Your task to perform on an android device: Go to notification settings Image 0: 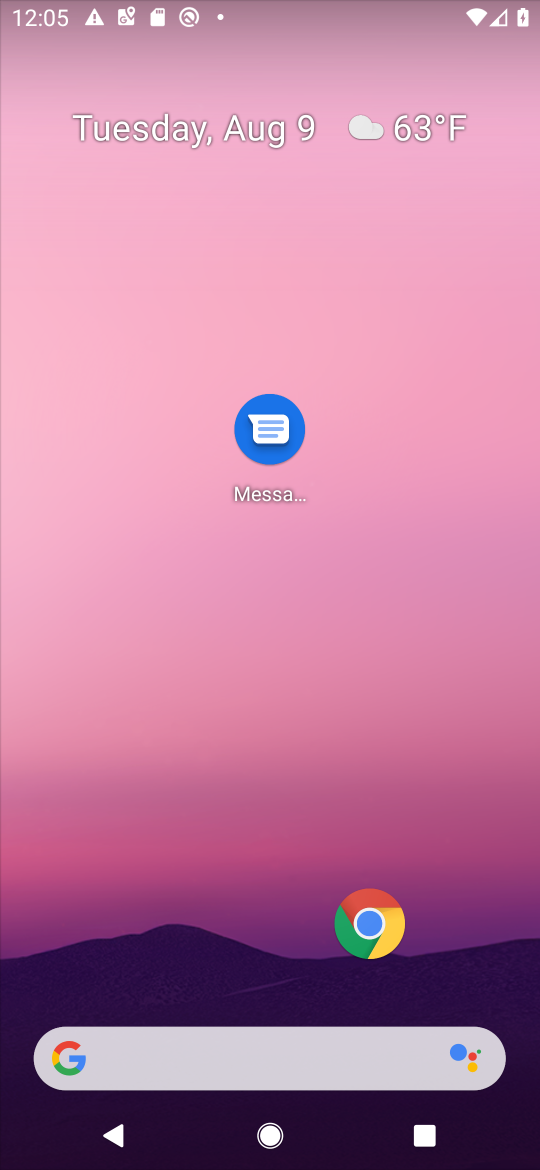
Step 0: drag from (40, 1117) to (139, 50)
Your task to perform on an android device: Go to notification settings Image 1: 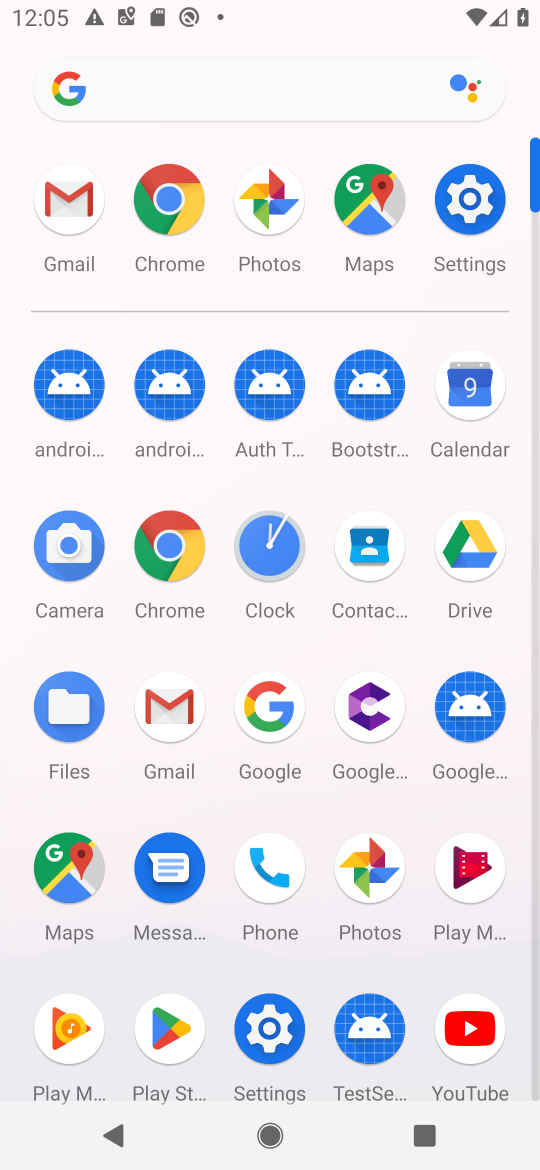
Step 1: click (281, 1020)
Your task to perform on an android device: Go to notification settings Image 2: 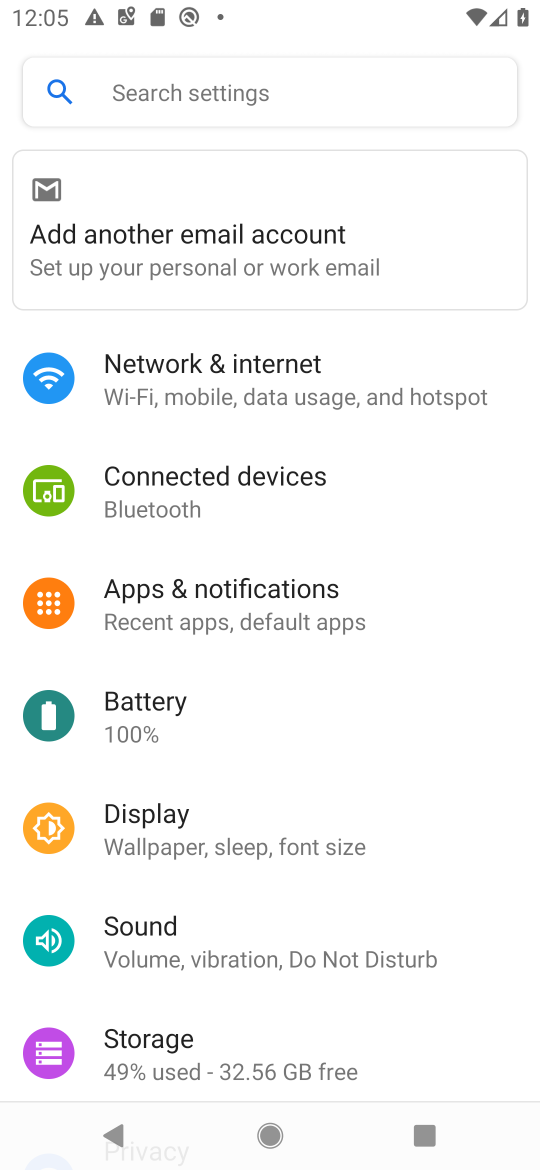
Step 2: drag from (476, 1033) to (523, 473)
Your task to perform on an android device: Go to notification settings Image 3: 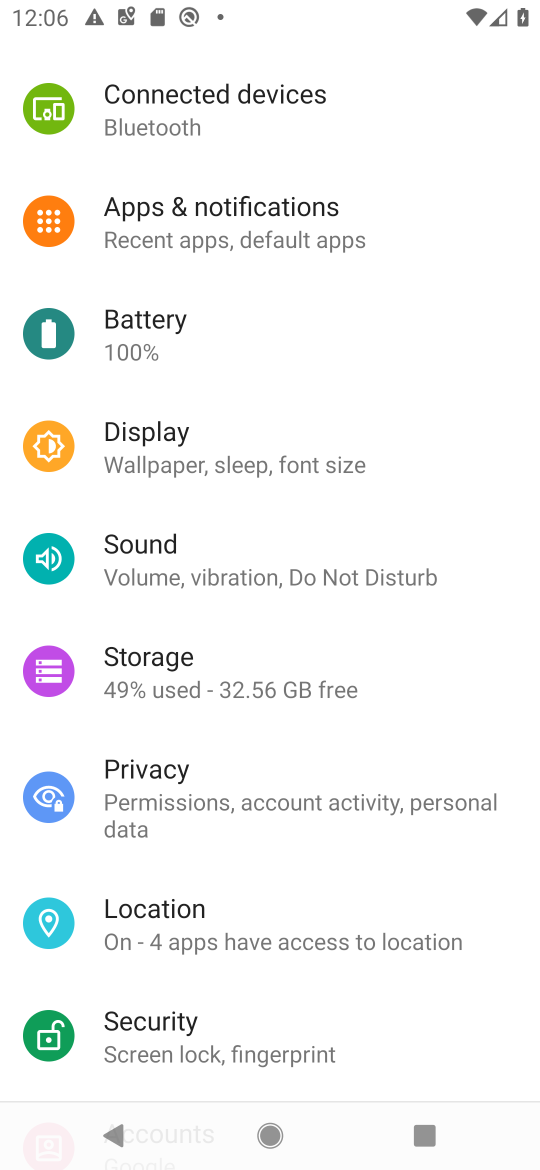
Step 3: click (190, 221)
Your task to perform on an android device: Go to notification settings Image 4: 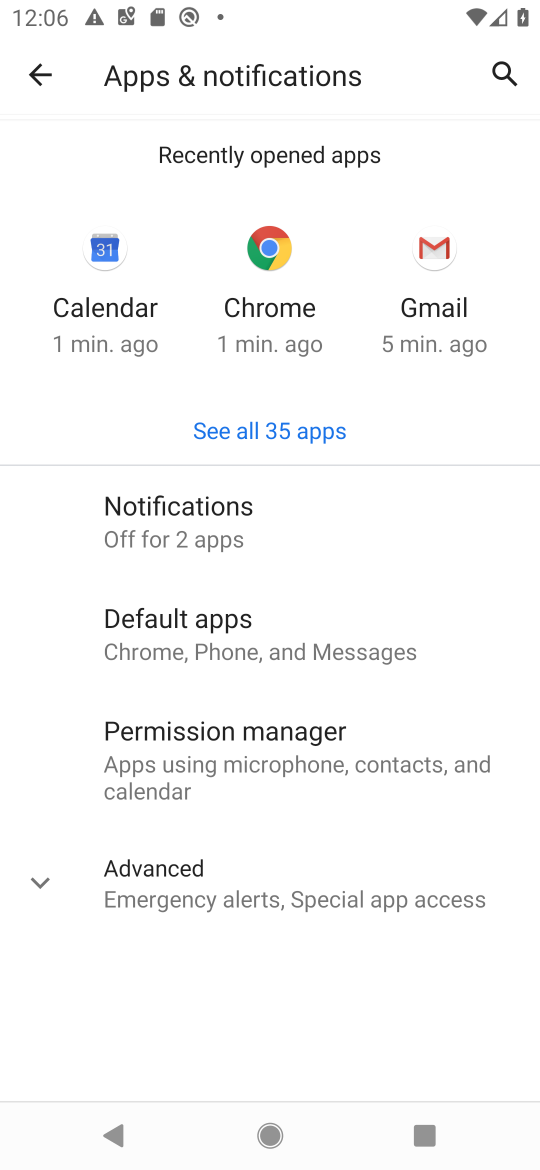
Step 4: task complete